Your task to perform on an android device: Open the calendar and show me this week's events? Image 0: 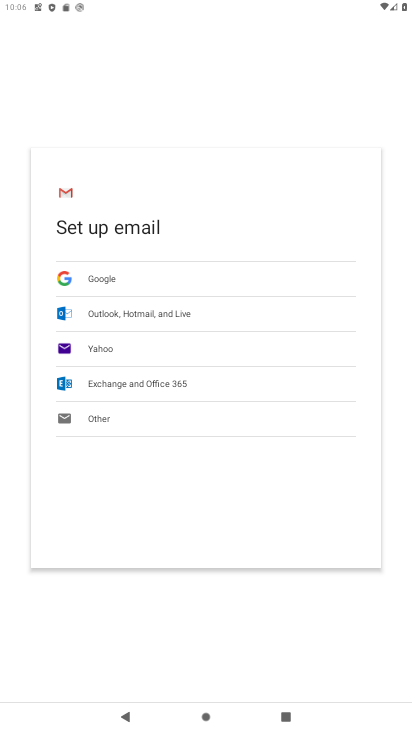
Step 0: press home button
Your task to perform on an android device: Open the calendar and show me this week's events? Image 1: 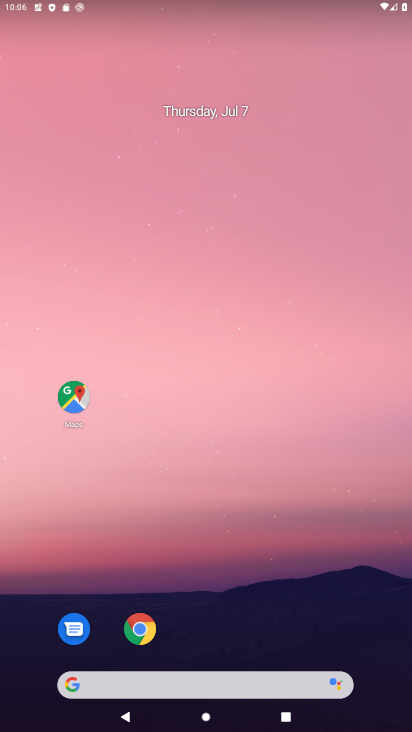
Step 1: drag from (296, 647) to (247, 103)
Your task to perform on an android device: Open the calendar and show me this week's events? Image 2: 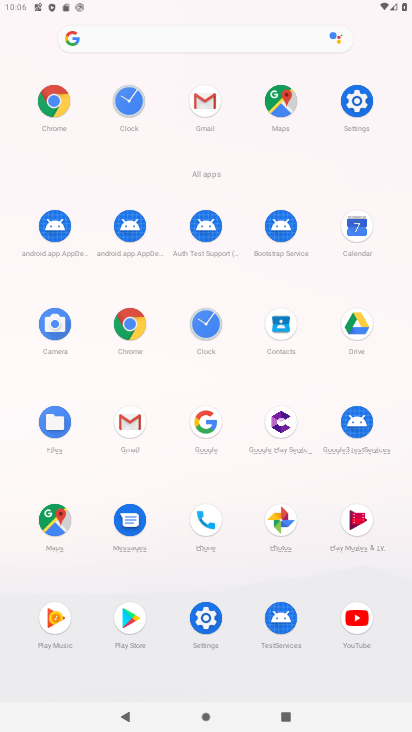
Step 2: click (356, 238)
Your task to perform on an android device: Open the calendar and show me this week's events? Image 3: 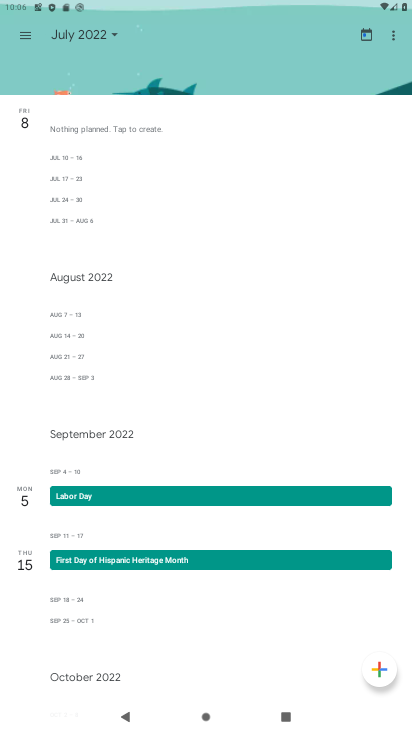
Step 3: click (108, 38)
Your task to perform on an android device: Open the calendar and show me this week's events? Image 4: 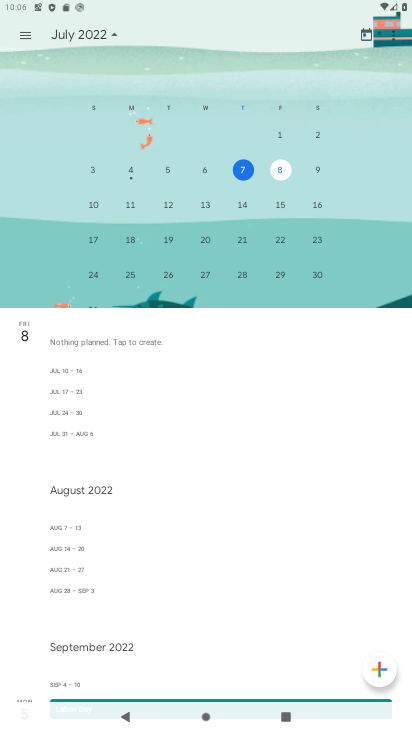
Step 4: click (317, 180)
Your task to perform on an android device: Open the calendar and show me this week's events? Image 5: 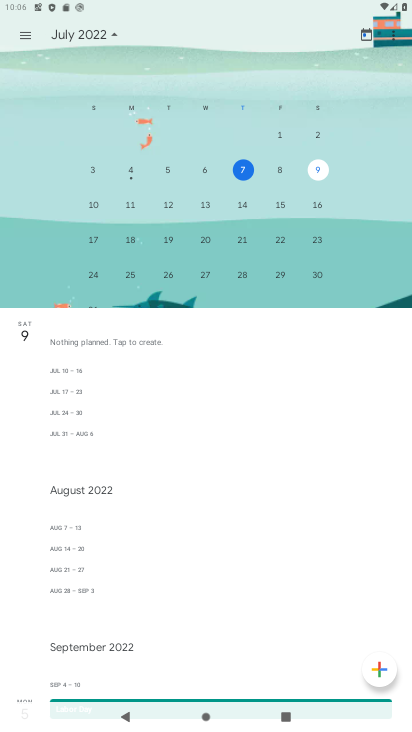
Step 5: click (92, 217)
Your task to perform on an android device: Open the calendar and show me this week's events? Image 6: 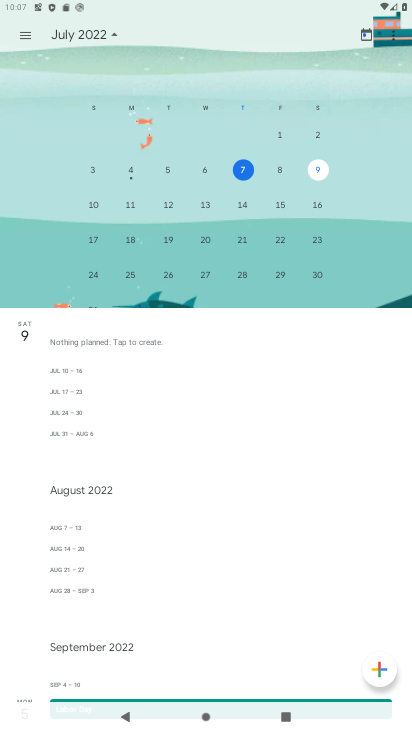
Step 6: click (97, 197)
Your task to perform on an android device: Open the calendar and show me this week's events? Image 7: 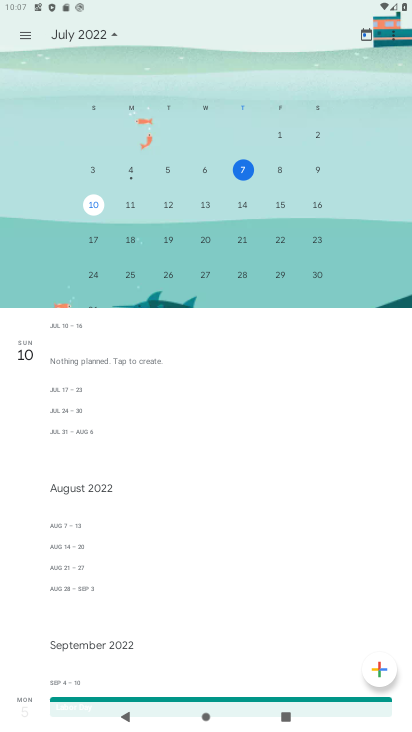
Step 7: task complete